Your task to perform on an android device: What is the news today? Image 0: 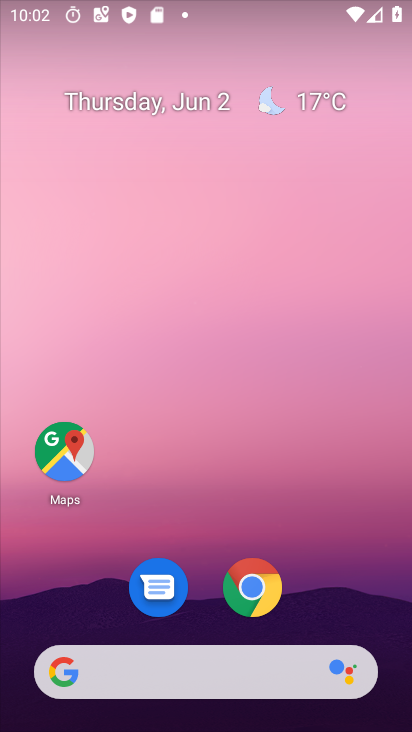
Step 0: press home button
Your task to perform on an android device: What is the news today? Image 1: 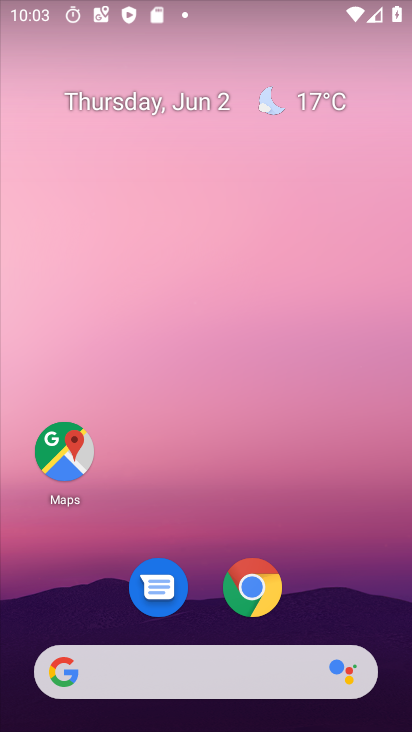
Step 1: task complete